Your task to perform on an android device: Open the web browser Image 0: 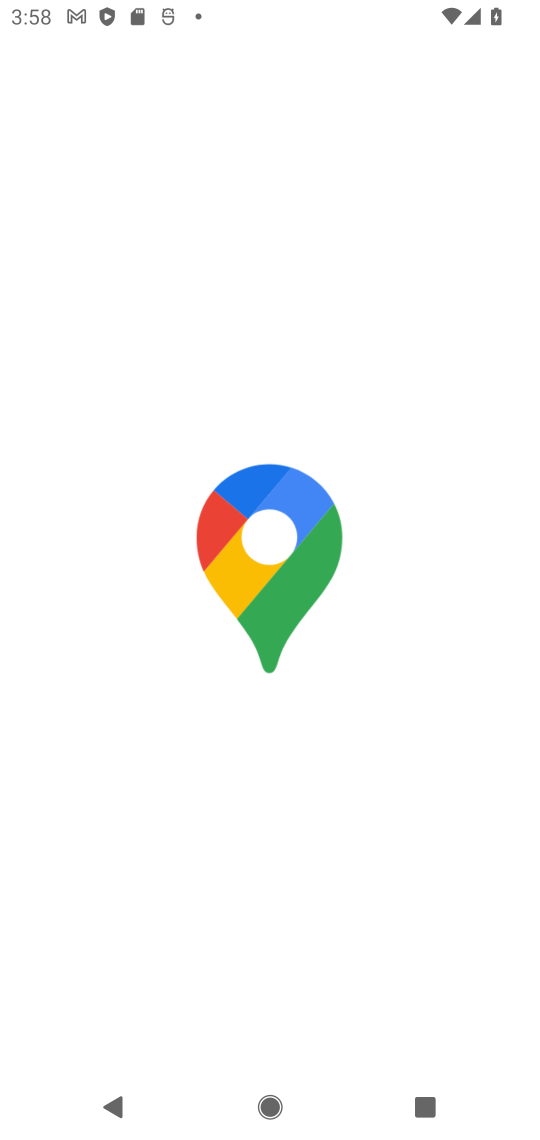
Step 0: press home button
Your task to perform on an android device: Open the web browser Image 1: 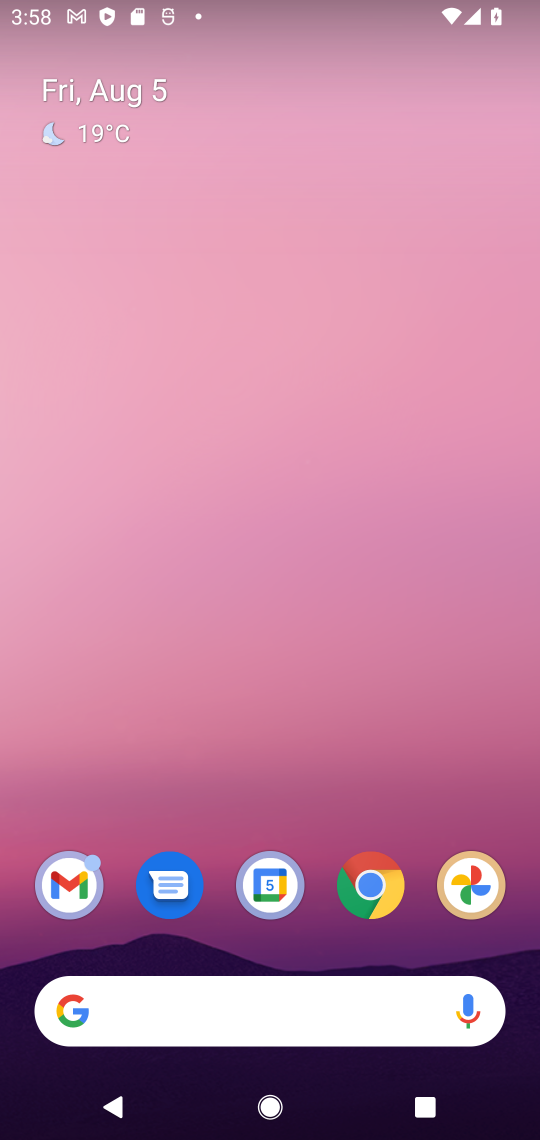
Step 1: click (370, 881)
Your task to perform on an android device: Open the web browser Image 2: 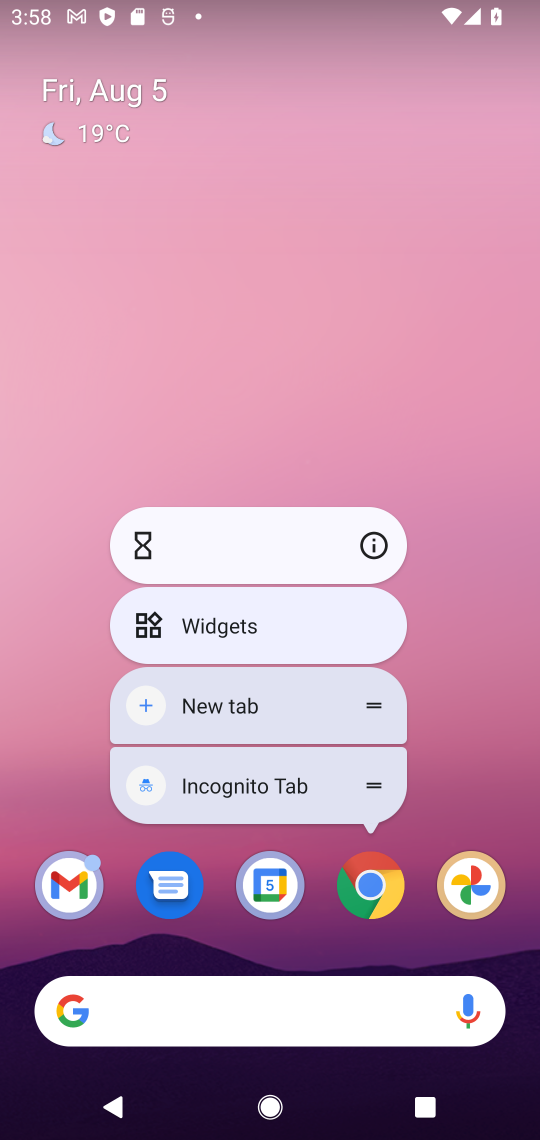
Step 2: click (379, 887)
Your task to perform on an android device: Open the web browser Image 3: 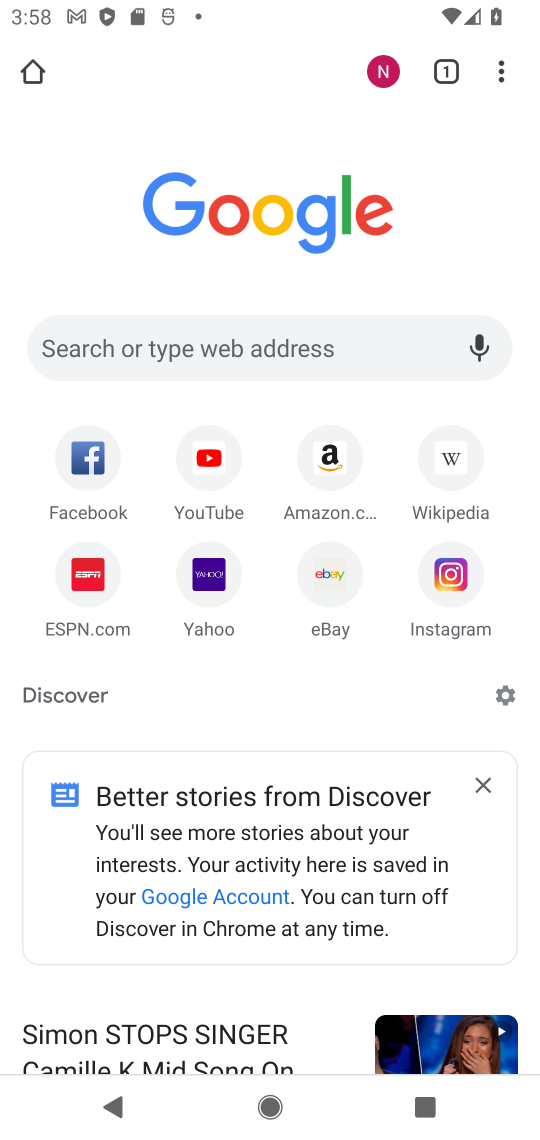
Step 3: task complete